Your task to perform on an android device: Open internet settings Image 0: 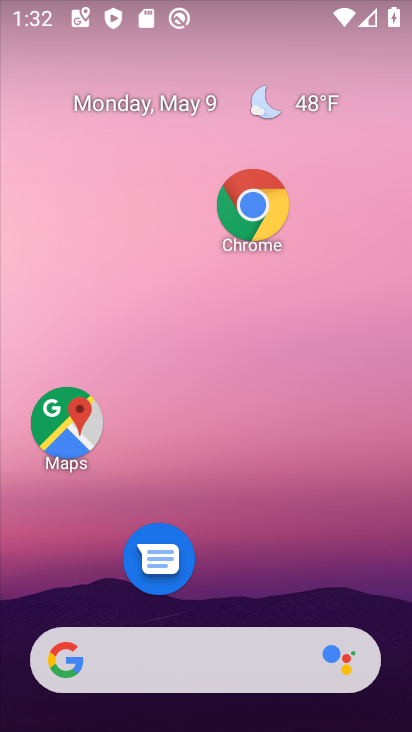
Step 0: drag from (304, 415) to (285, 248)
Your task to perform on an android device: Open internet settings Image 1: 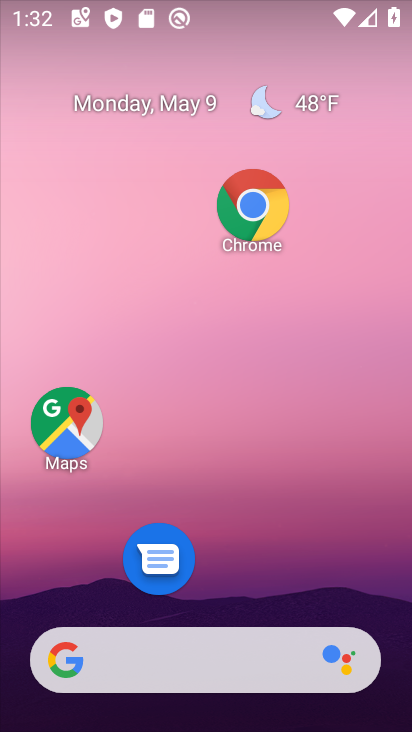
Step 1: drag from (292, 578) to (314, 308)
Your task to perform on an android device: Open internet settings Image 2: 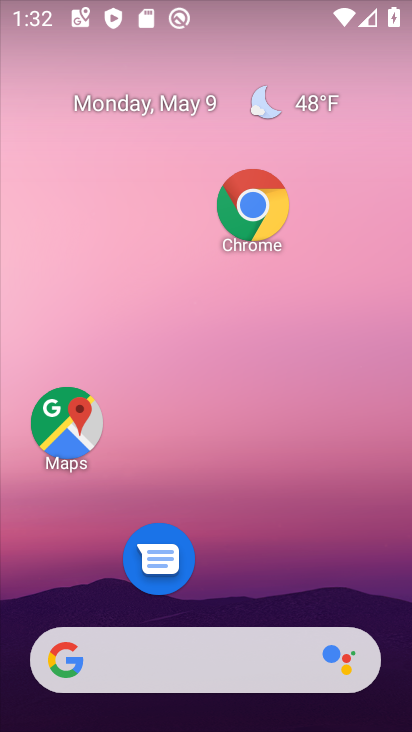
Step 2: drag from (281, 548) to (294, 304)
Your task to perform on an android device: Open internet settings Image 3: 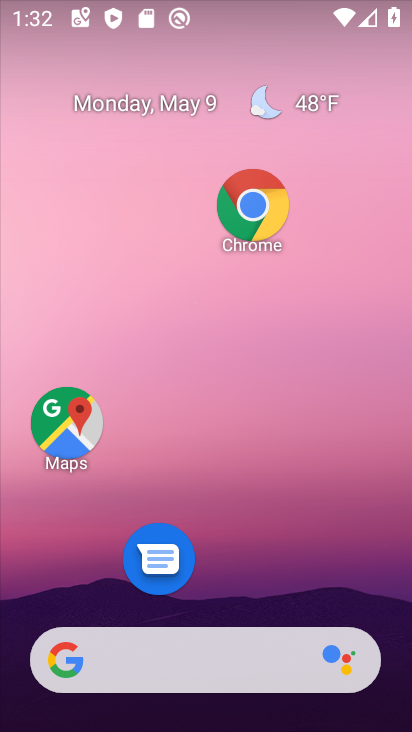
Step 3: drag from (288, 508) to (285, 179)
Your task to perform on an android device: Open internet settings Image 4: 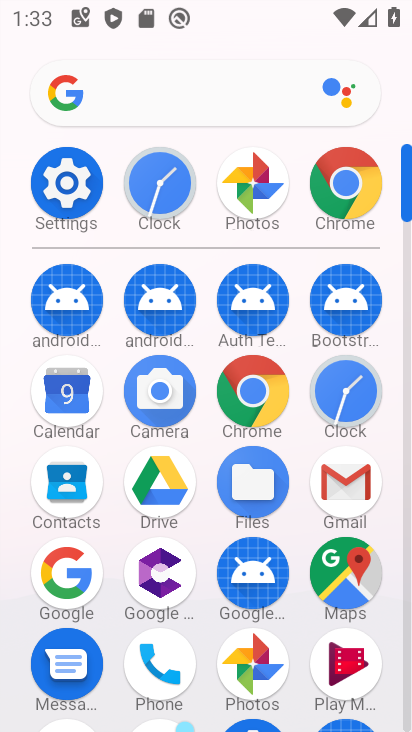
Step 4: click (70, 182)
Your task to perform on an android device: Open internet settings Image 5: 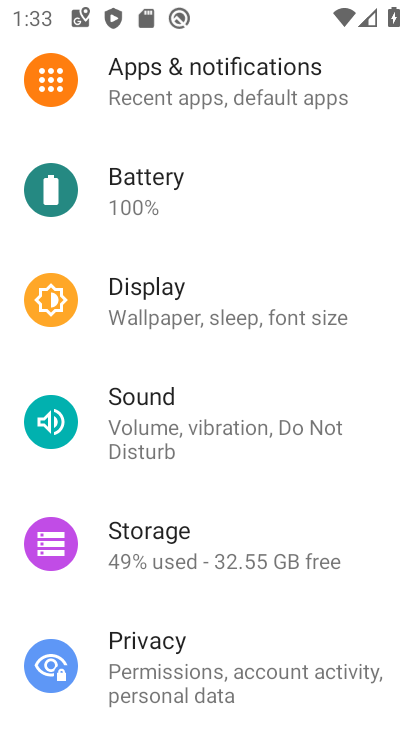
Step 5: drag from (189, 259) to (239, 622)
Your task to perform on an android device: Open internet settings Image 6: 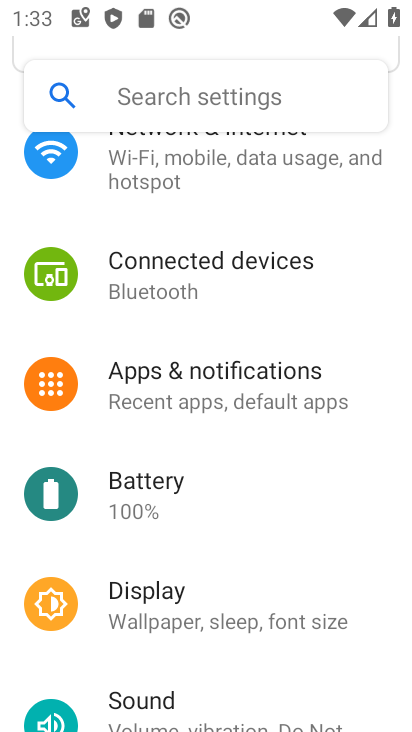
Step 6: click (183, 167)
Your task to perform on an android device: Open internet settings Image 7: 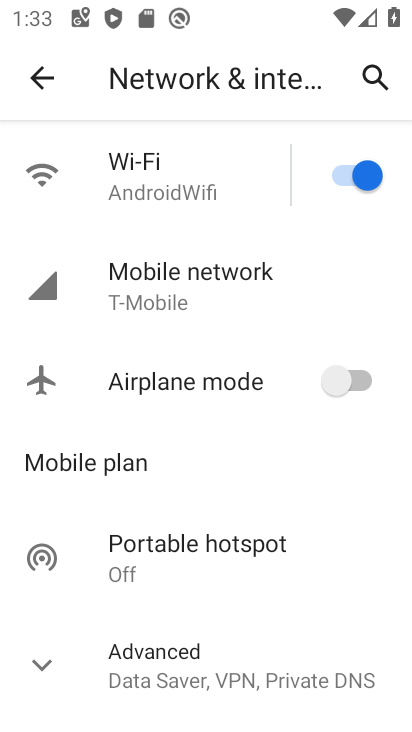
Step 7: click (210, 296)
Your task to perform on an android device: Open internet settings Image 8: 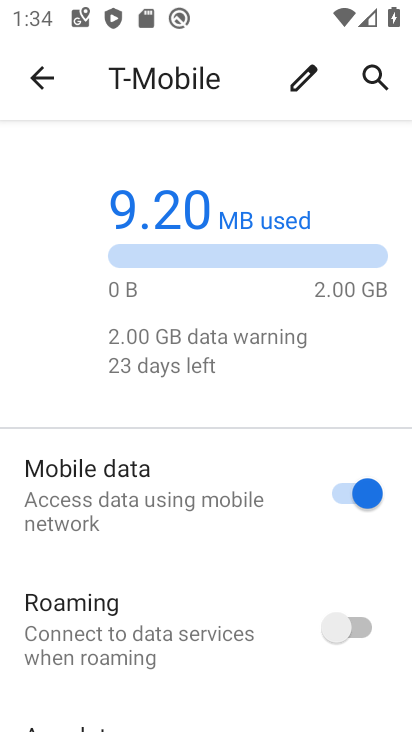
Step 8: task complete